Your task to perform on an android device: toggle show notifications on the lock screen Image 0: 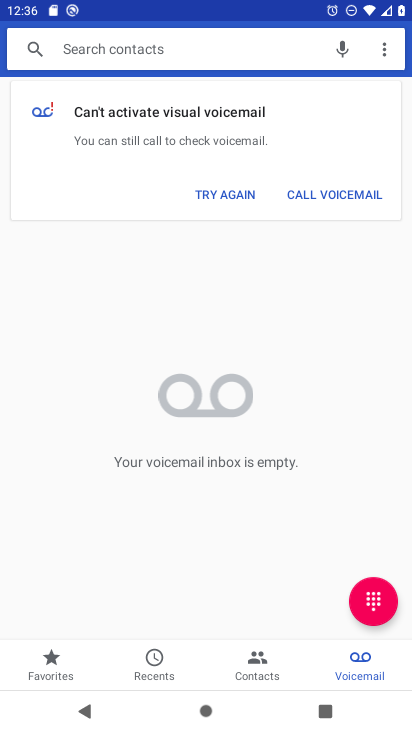
Step 0: press home button
Your task to perform on an android device: toggle show notifications on the lock screen Image 1: 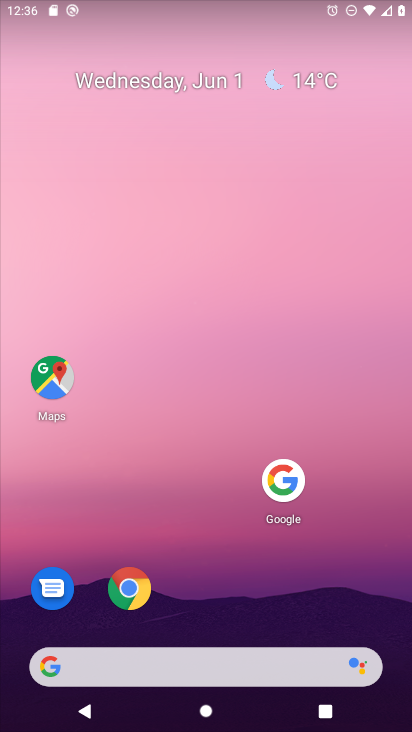
Step 1: drag from (148, 671) to (298, 86)
Your task to perform on an android device: toggle show notifications on the lock screen Image 2: 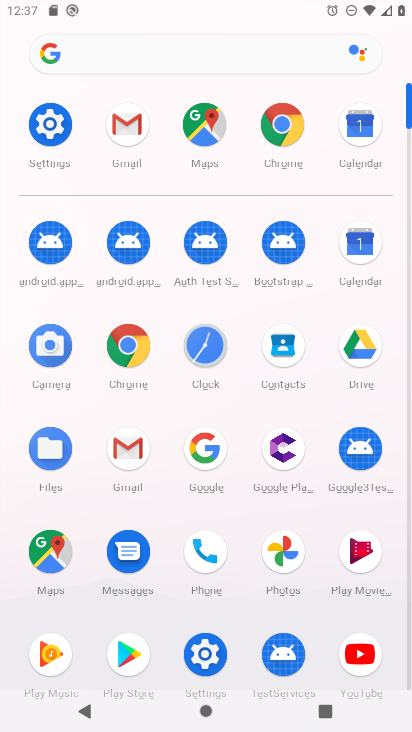
Step 2: click (39, 127)
Your task to perform on an android device: toggle show notifications on the lock screen Image 3: 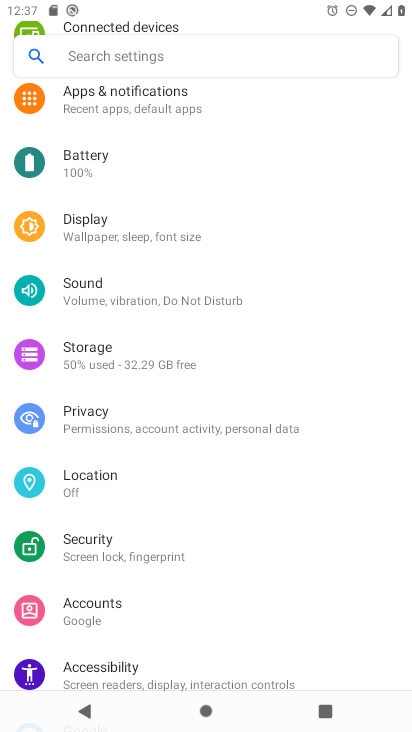
Step 3: click (165, 100)
Your task to perform on an android device: toggle show notifications on the lock screen Image 4: 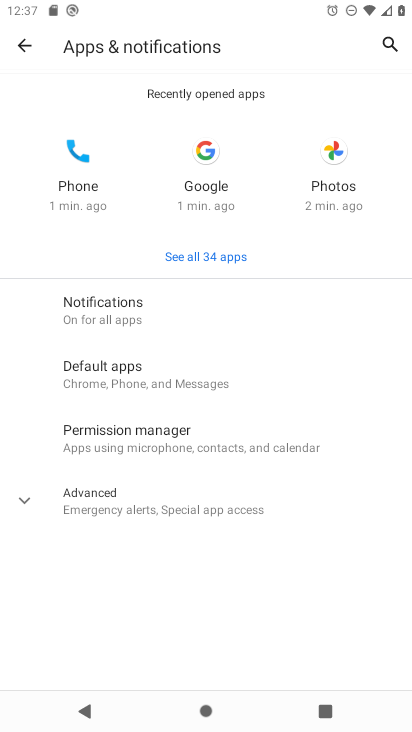
Step 4: click (108, 317)
Your task to perform on an android device: toggle show notifications on the lock screen Image 5: 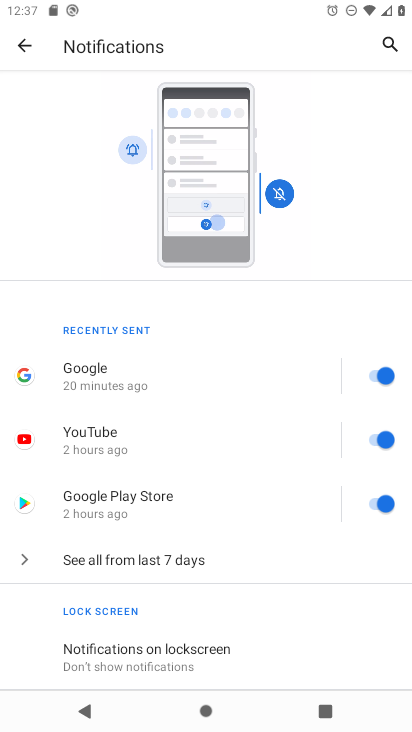
Step 5: drag from (166, 606) to (287, 321)
Your task to perform on an android device: toggle show notifications on the lock screen Image 6: 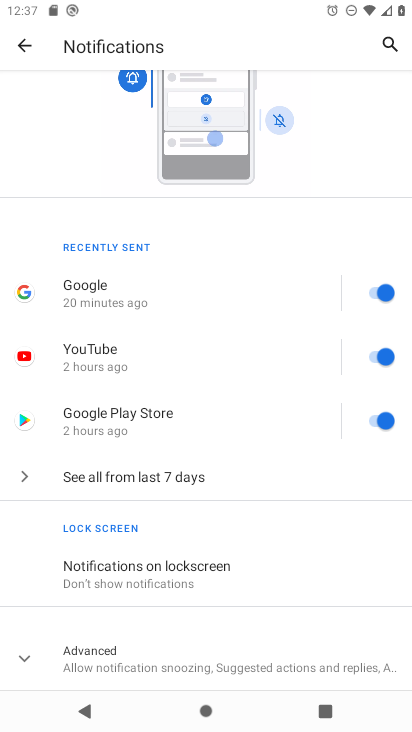
Step 6: click (171, 571)
Your task to perform on an android device: toggle show notifications on the lock screen Image 7: 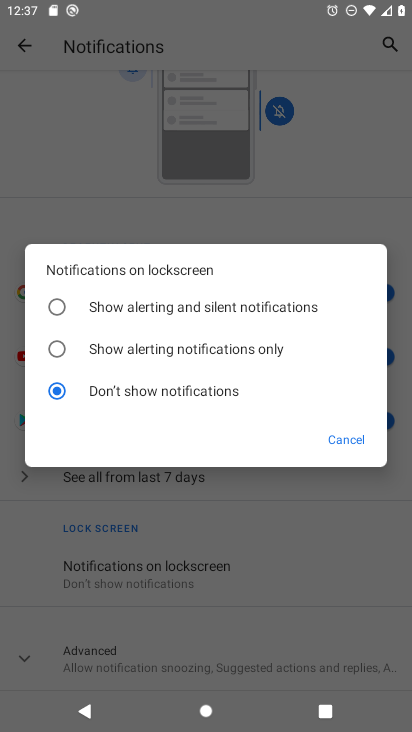
Step 7: click (60, 308)
Your task to perform on an android device: toggle show notifications on the lock screen Image 8: 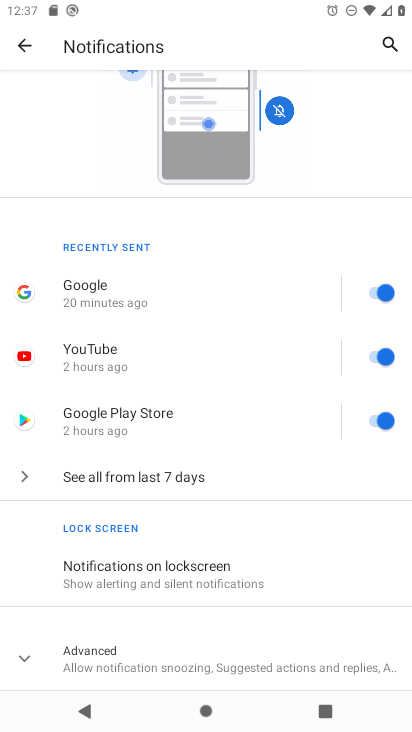
Step 8: task complete